Your task to perform on an android device: Go to notification settings Image 0: 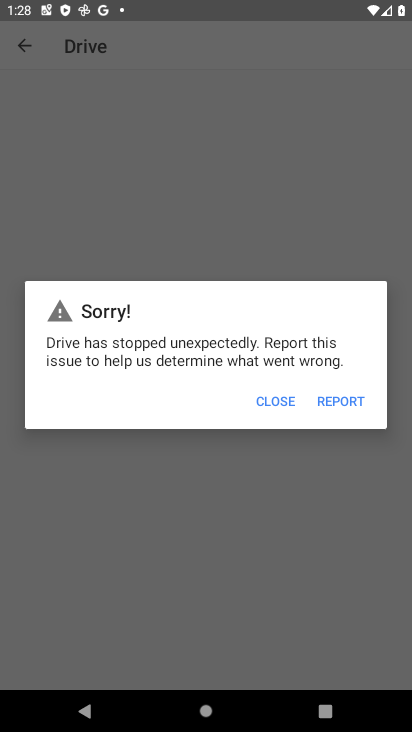
Step 0: press home button
Your task to perform on an android device: Go to notification settings Image 1: 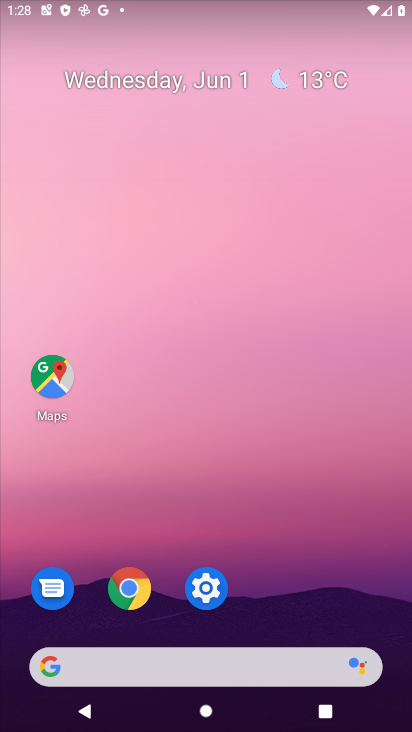
Step 1: drag from (234, 684) to (186, 68)
Your task to perform on an android device: Go to notification settings Image 2: 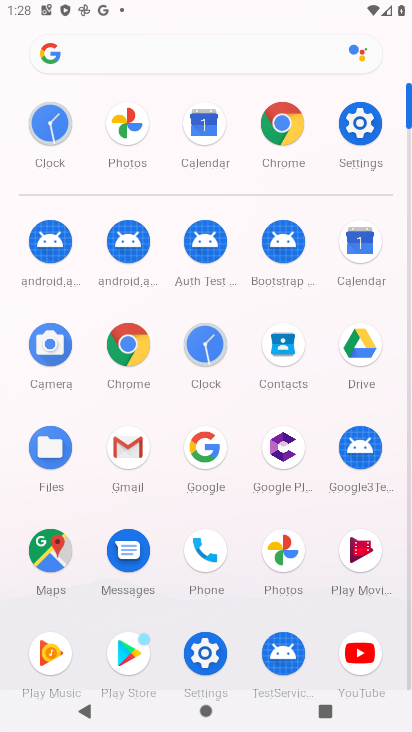
Step 2: click (208, 647)
Your task to perform on an android device: Go to notification settings Image 3: 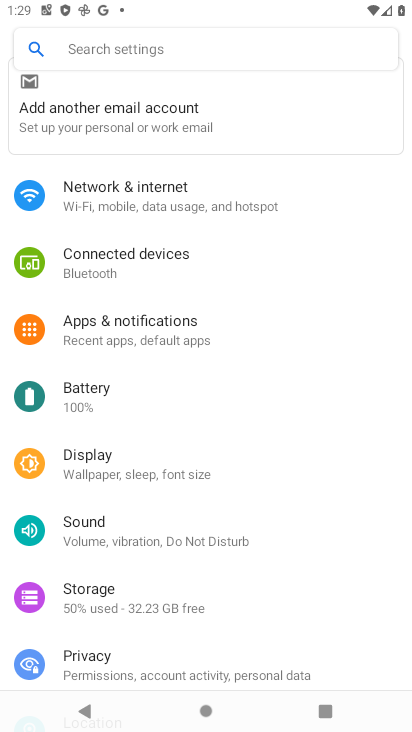
Step 3: click (148, 42)
Your task to perform on an android device: Go to notification settings Image 4: 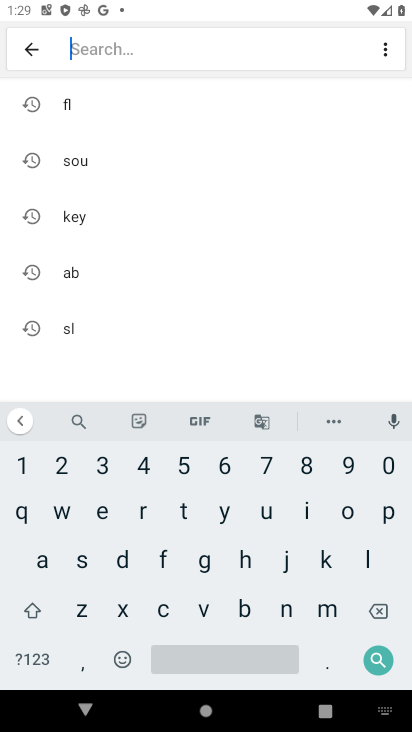
Step 4: click (290, 616)
Your task to perform on an android device: Go to notification settings Image 5: 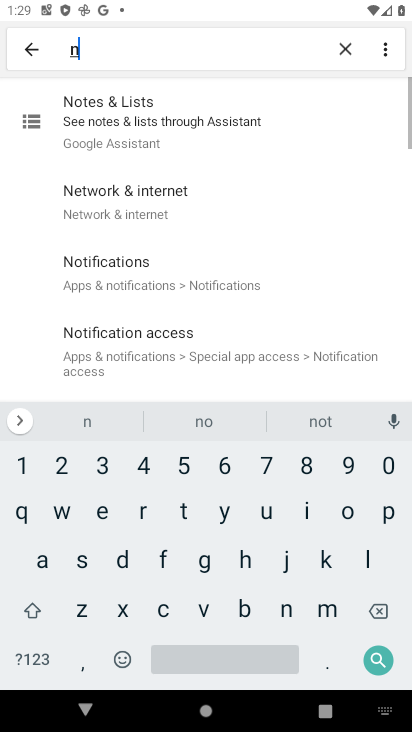
Step 5: click (385, 460)
Your task to perform on an android device: Go to notification settings Image 6: 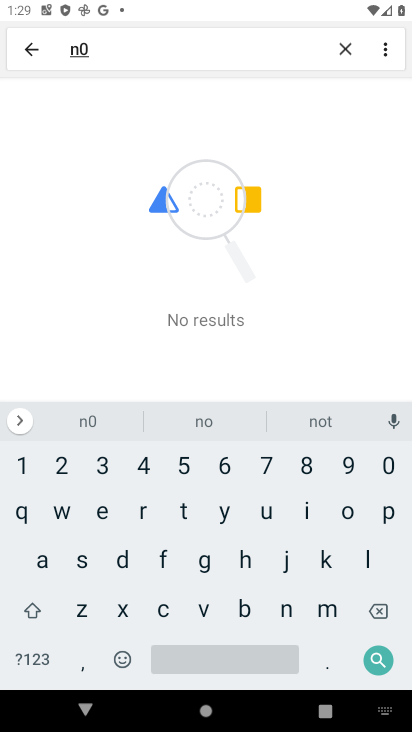
Step 6: click (380, 617)
Your task to perform on an android device: Go to notification settings Image 7: 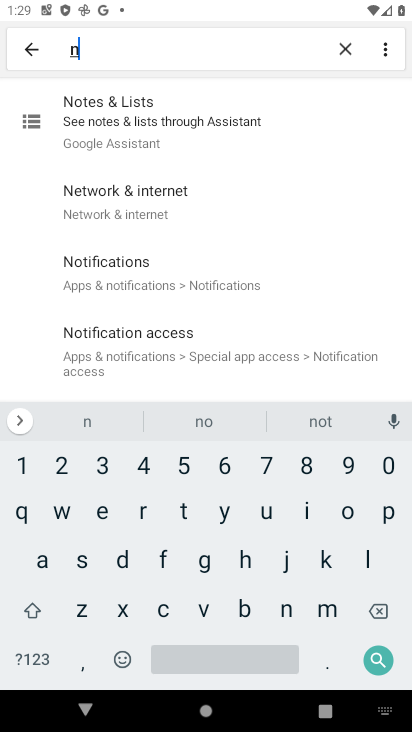
Step 7: click (351, 507)
Your task to perform on an android device: Go to notification settings Image 8: 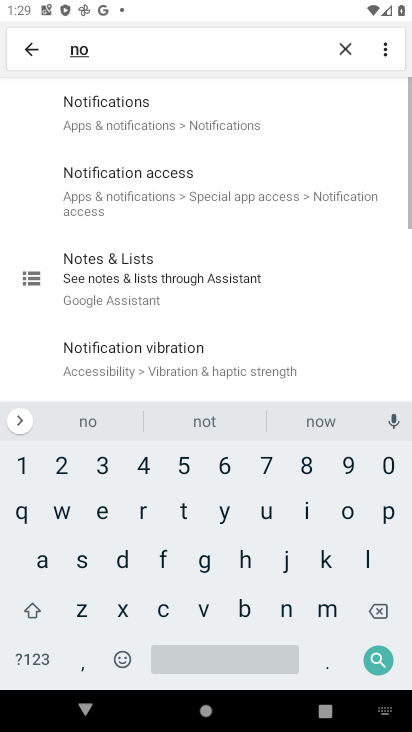
Step 8: click (131, 115)
Your task to perform on an android device: Go to notification settings Image 9: 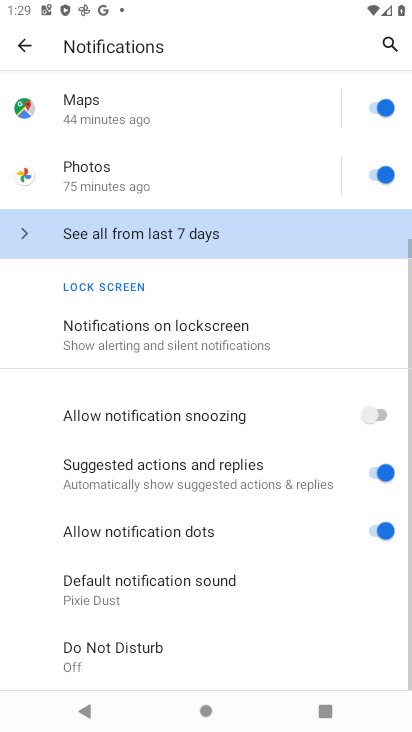
Step 9: task complete